Your task to perform on an android device: Is it going to rain this weekend? Image 0: 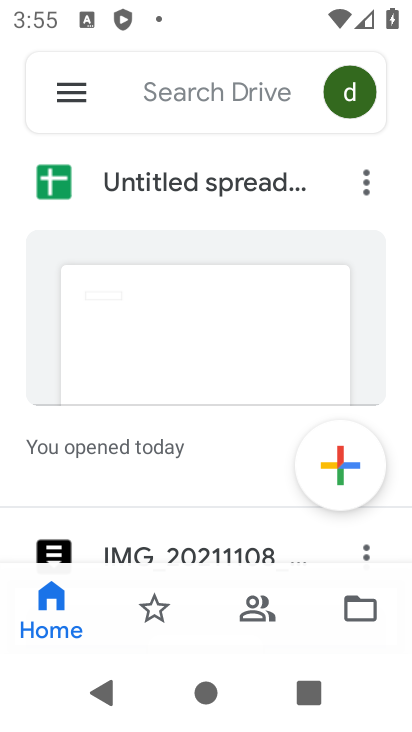
Step 0: task complete